Your task to perform on an android device: turn off wifi Image 0: 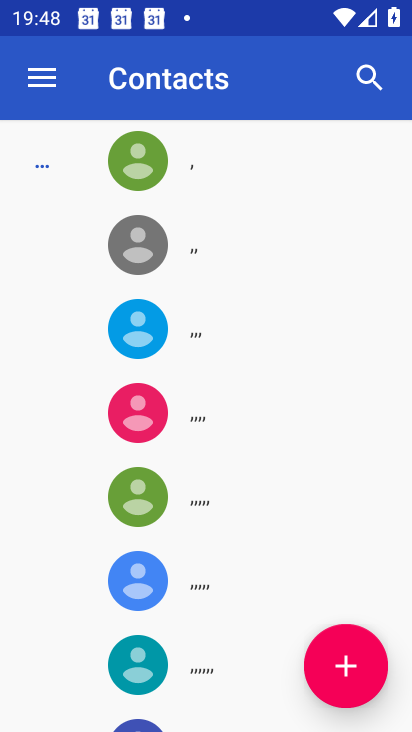
Step 0: press home button
Your task to perform on an android device: turn off wifi Image 1: 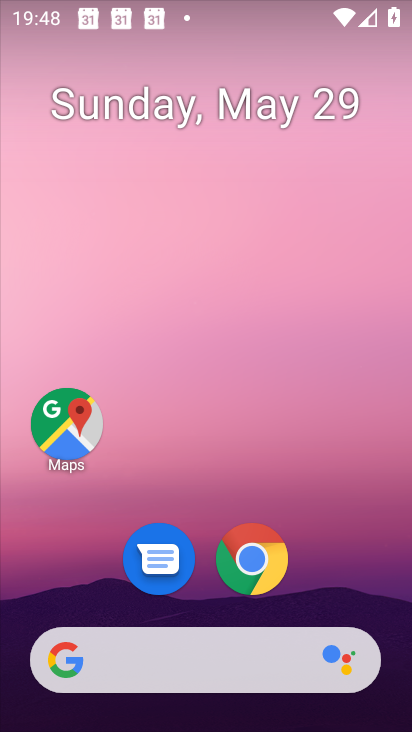
Step 1: drag from (382, 601) to (362, 161)
Your task to perform on an android device: turn off wifi Image 2: 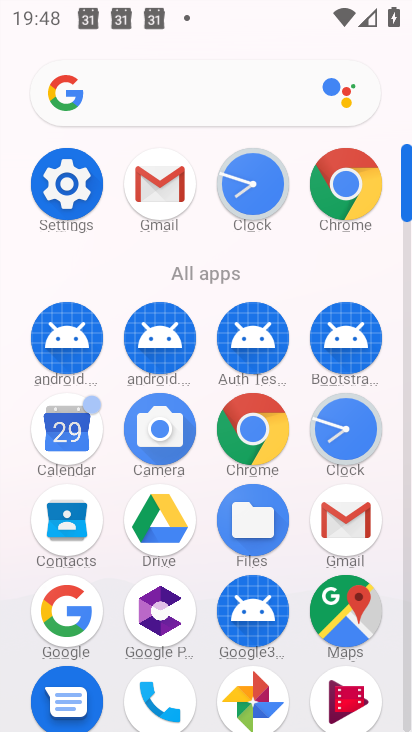
Step 2: click (82, 200)
Your task to perform on an android device: turn off wifi Image 3: 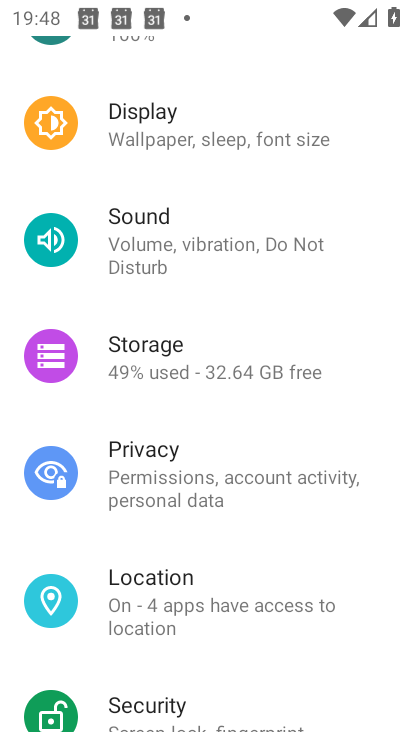
Step 3: drag from (353, 272) to (349, 356)
Your task to perform on an android device: turn off wifi Image 4: 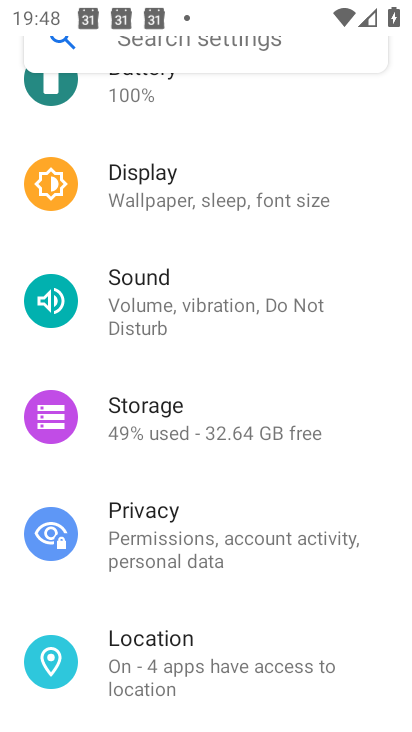
Step 4: click (366, 296)
Your task to perform on an android device: turn off wifi Image 5: 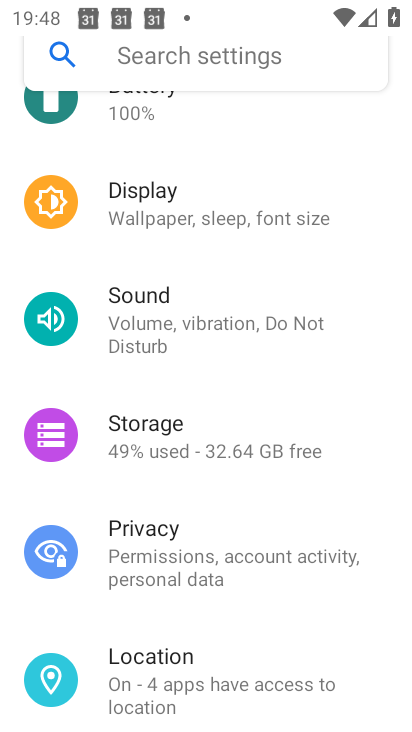
Step 5: drag from (372, 271) to (367, 368)
Your task to perform on an android device: turn off wifi Image 6: 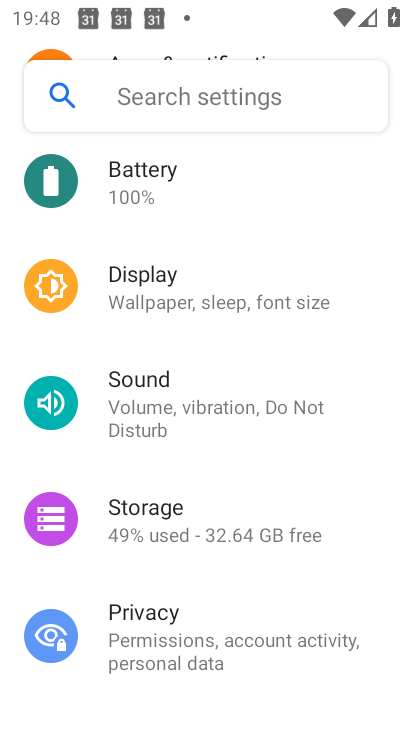
Step 6: drag from (380, 247) to (374, 344)
Your task to perform on an android device: turn off wifi Image 7: 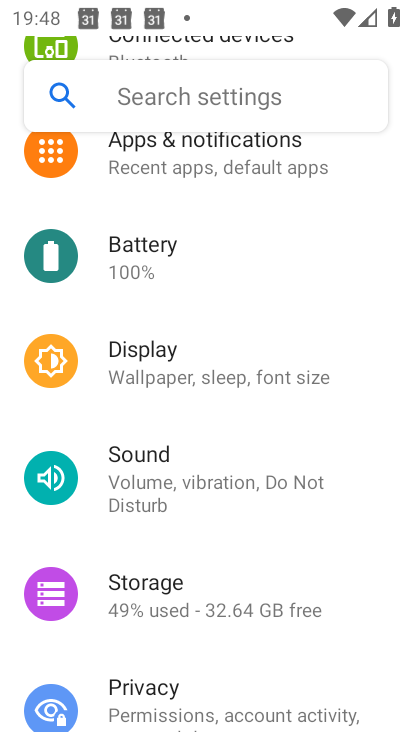
Step 7: drag from (375, 268) to (377, 326)
Your task to perform on an android device: turn off wifi Image 8: 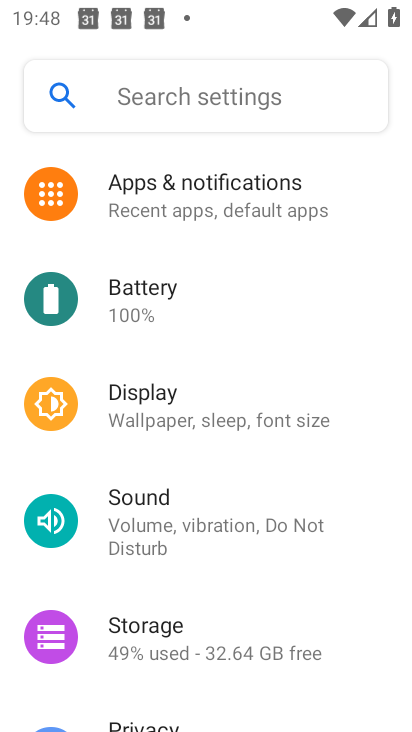
Step 8: drag from (374, 287) to (373, 332)
Your task to perform on an android device: turn off wifi Image 9: 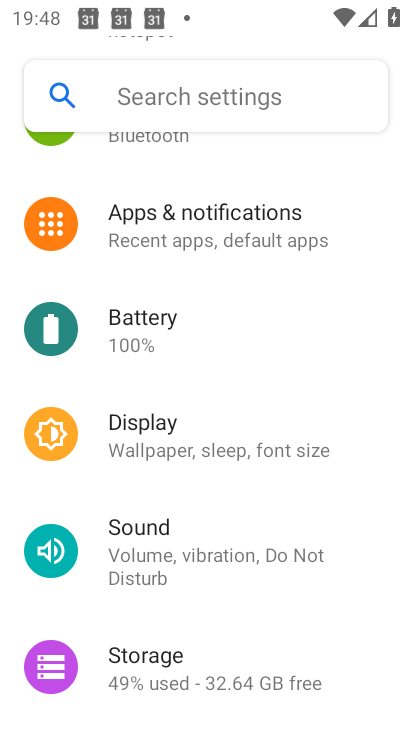
Step 9: drag from (369, 274) to (356, 366)
Your task to perform on an android device: turn off wifi Image 10: 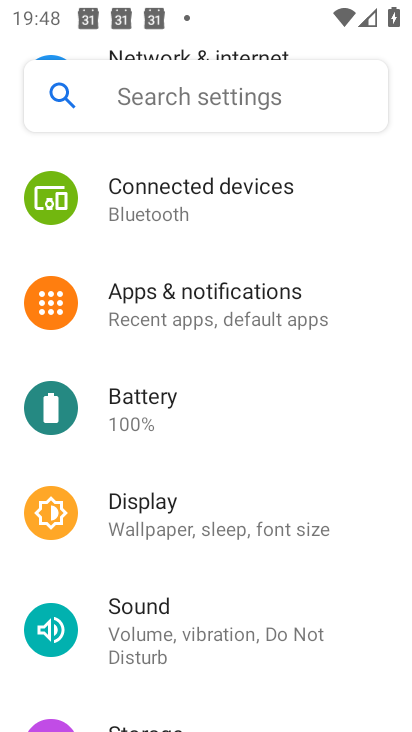
Step 10: drag from (361, 263) to (375, 353)
Your task to perform on an android device: turn off wifi Image 11: 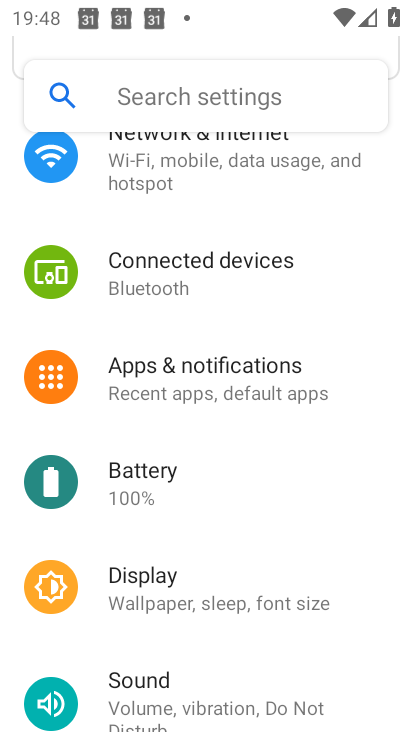
Step 11: drag from (383, 282) to (395, 351)
Your task to perform on an android device: turn off wifi Image 12: 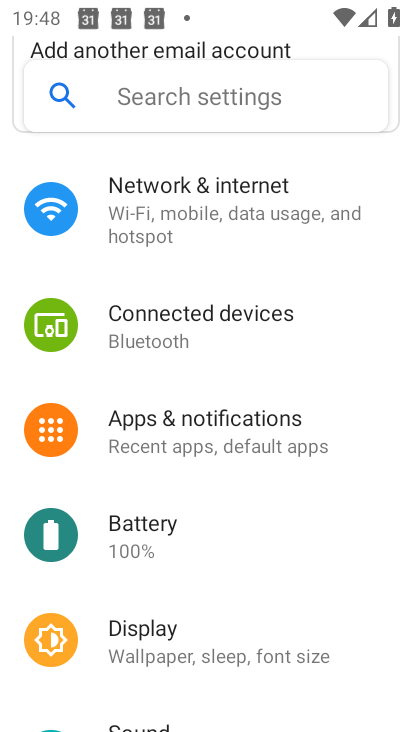
Step 12: drag from (385, 293) to (373, 391)
Your task to perform on an android device: turn off wifi Image 13: 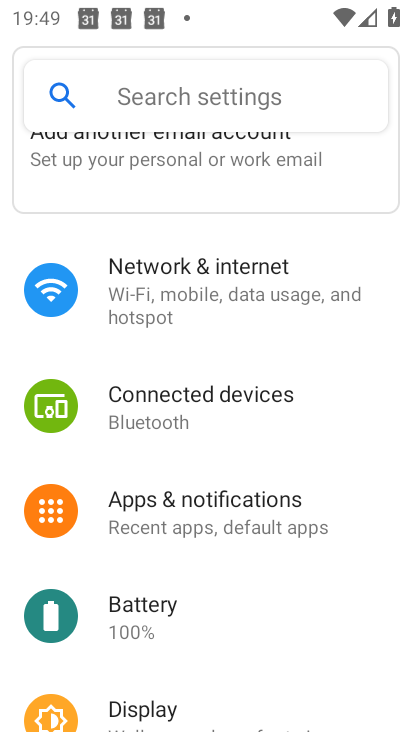
Step 13: click (349, 287)
Your task to perform on an android device: turn off wifi Image 14: 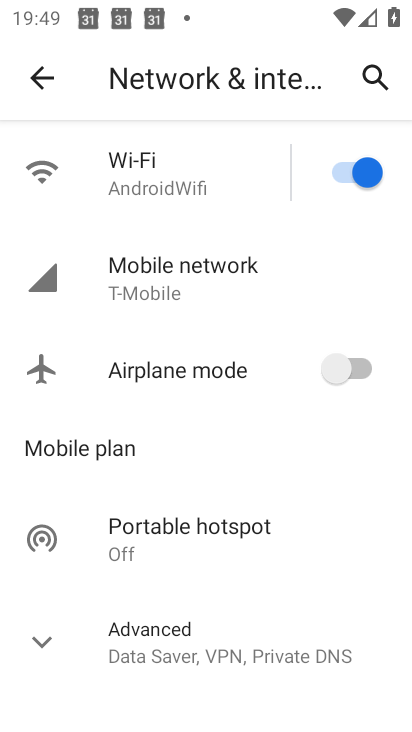
Step 14: click (374, 179)
Your task to perform on an android device: turn off wifi Image 15: 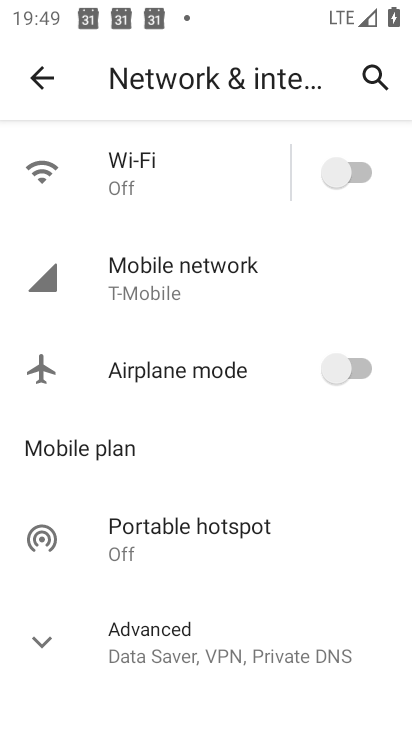
Step 15: task complete